Your task to perform on an android device: Search for Italian restaurants on Maps Image 0: 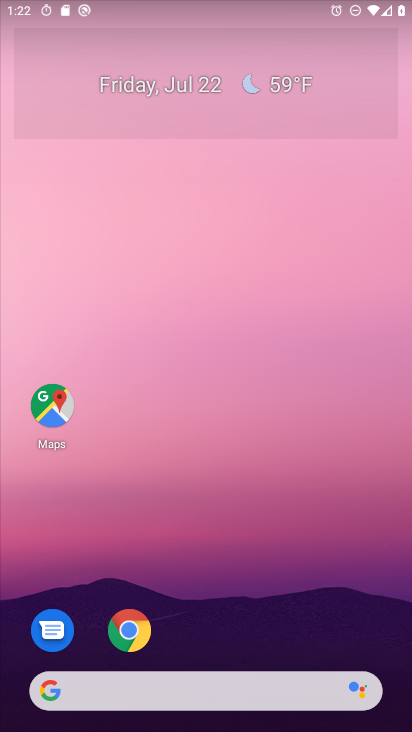
Step 0: press home button
Your task to perform on an android device: Search for Italian restaurants on Maps Image 1: 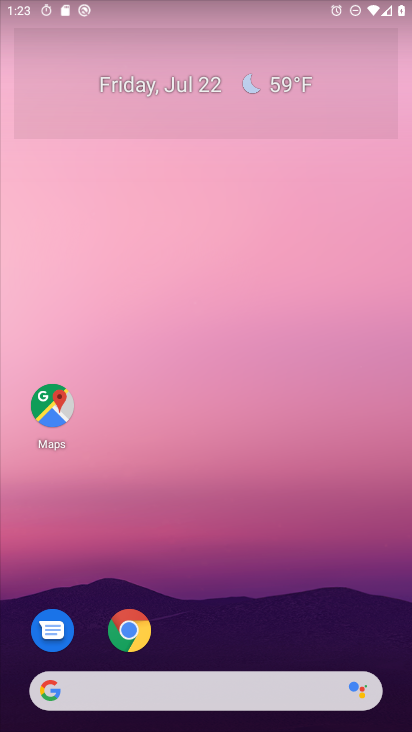
Step 1: drag from (230, 644) to (230, 149)
Your task to perform on an android device: Search for Italian restaurants on Maps Image 2: 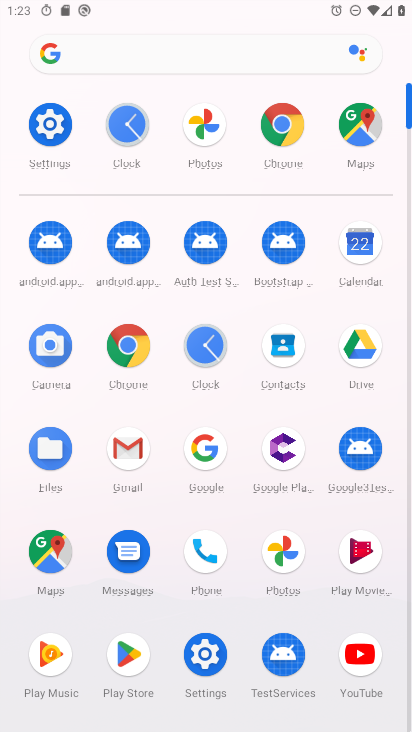
Step 2: click (362, 129)
Your task to perform on an android device: Search for Italian restaurants on Maps Image 3: 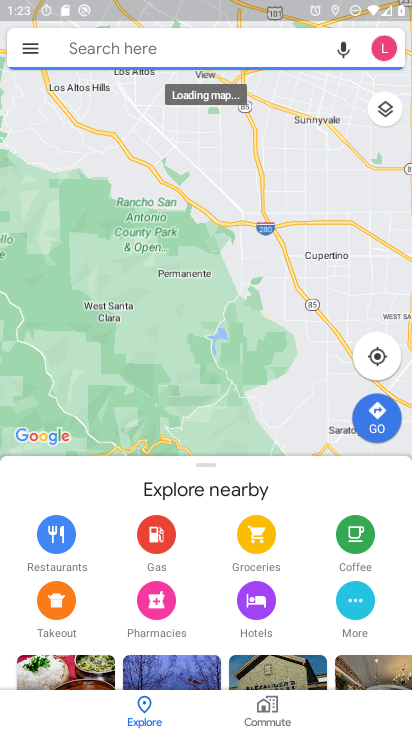
Step 3: click (155, 58)
Your task to perform on an android device: Search for Italian restaurants on Maps Image 4: 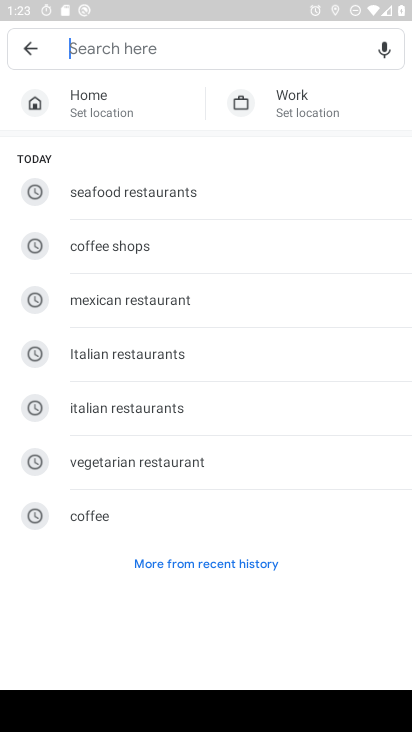
Step 4: click (117, 404)
Your task to perform on an android device: Search for Italian restaurants on Maps Image 5: 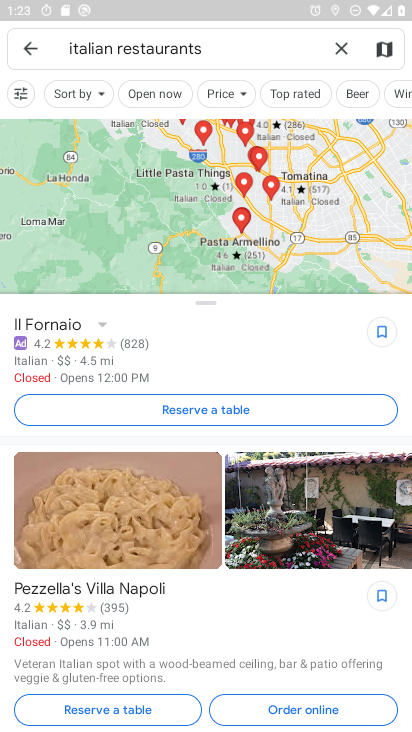
Step 5: task complete